Your task to perform on an android device: open sync settings in chrome Image 0: 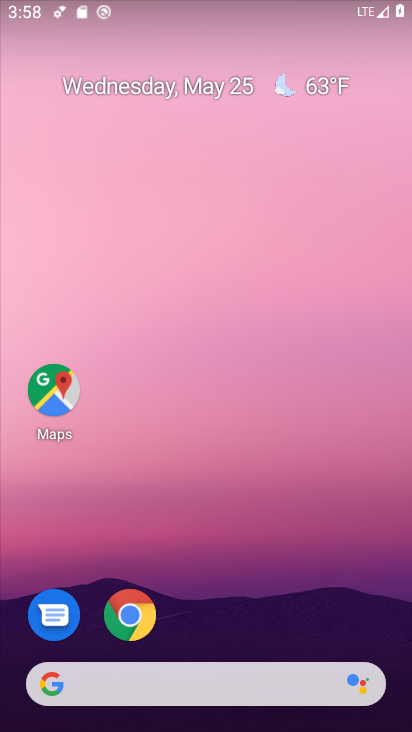
Step 0: drag from (273, 558) to (244, 70)
Your task to perform on an android device: open sync settings in chrome Image 1: 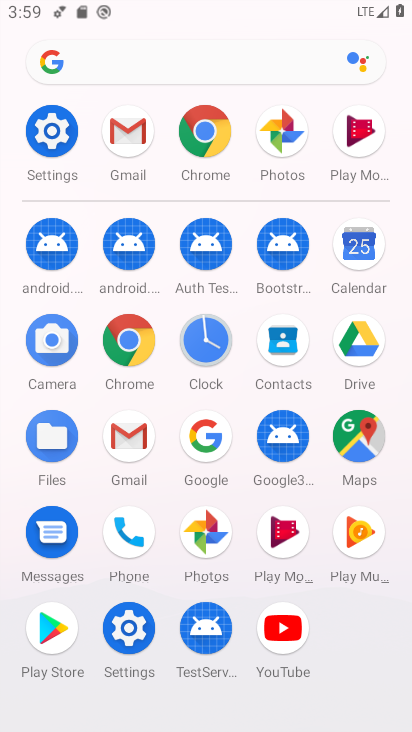
Step 1: click (125, 350)
Your task to perform on an android device: open sync settings in chrome Image 2: 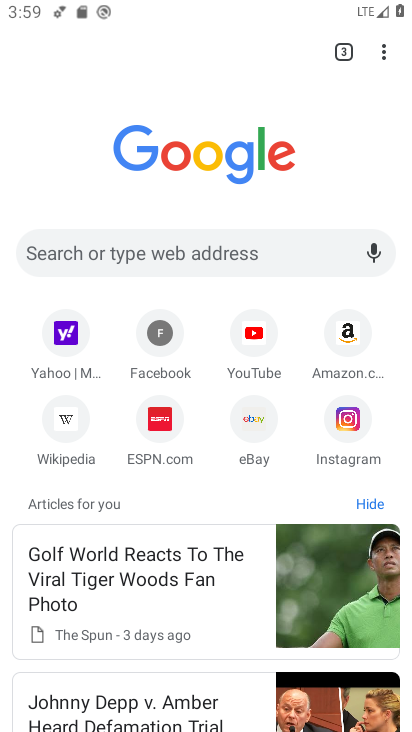
Step 2: click (377, 50)
Your task to perform on an android device: open sync settings in chrome Image 3: 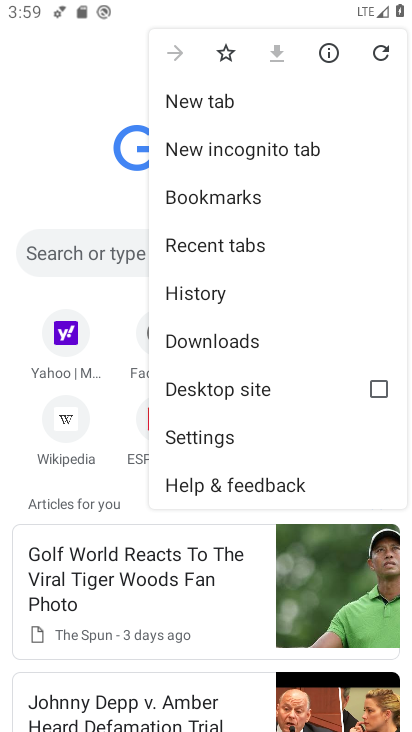
Step 3: click (250, 435)
Your task to perform on an android device: open sync settings in chrome Image 4: 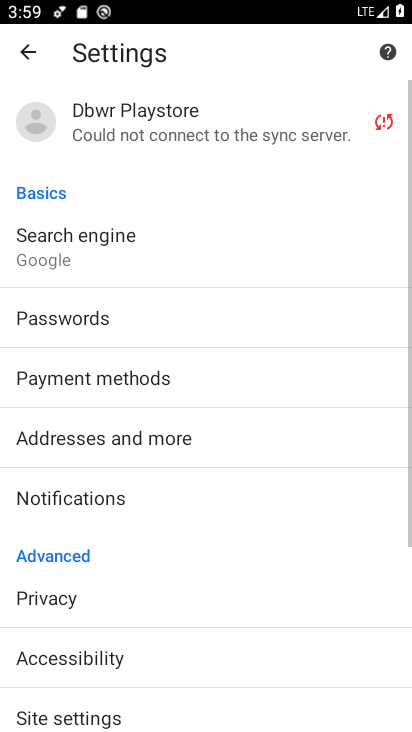
Step 4: drag from (235, 509) to (237, 168)
Your task to perform on an android device: open sync settings in chrome Image 5: 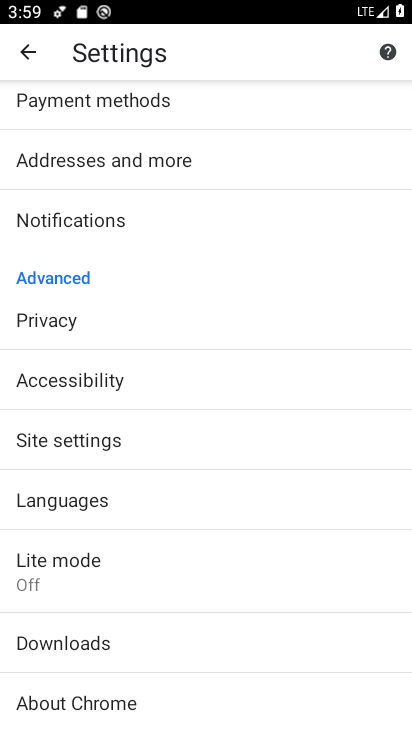
Step 5: click (149, 448)
Your task to perform on an android device: open sync settings in chrome Image 6: 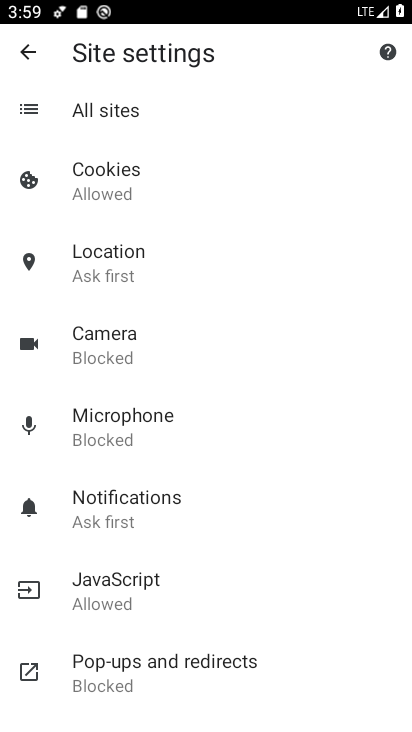
Step 6: drag from (236, 609) to (244, 173)
Your task to perform on an android device: open sync settings in chrome Image 7: 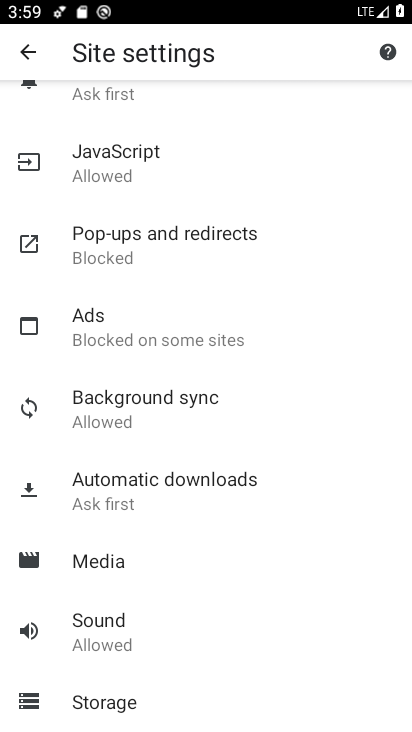
Step 7: click (198, 391)
Your task to perform on an android device: open sync settings in chrome Image 8: 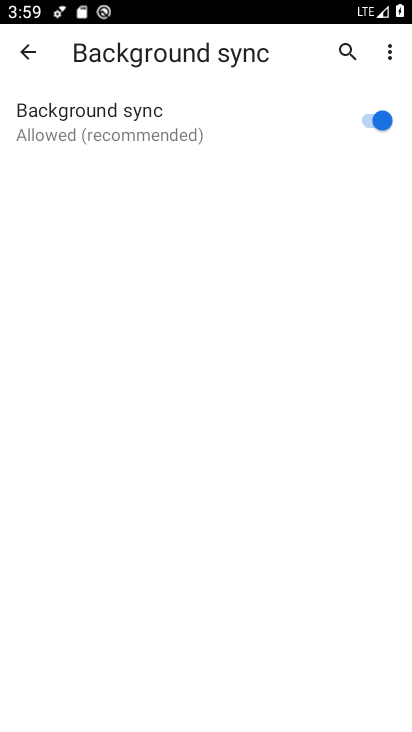
Step 8: task complete